Your task to perform on an android device: Search for vegetarian restaurants on Maps Image 0: 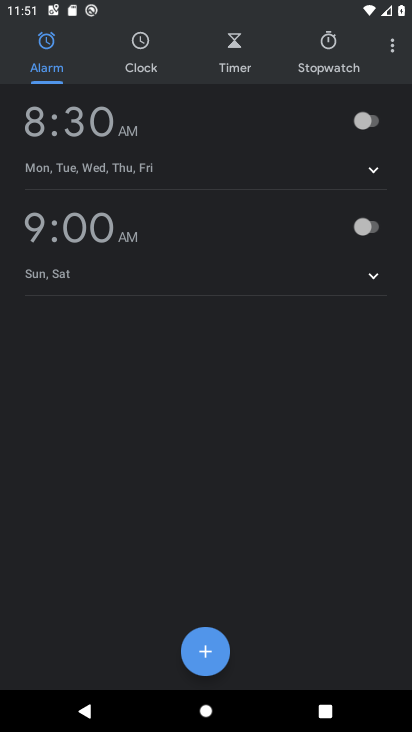
Step 0: press home button
Your task to perform on an android device: Search for vegetarian restaurants on Maps Image 1: 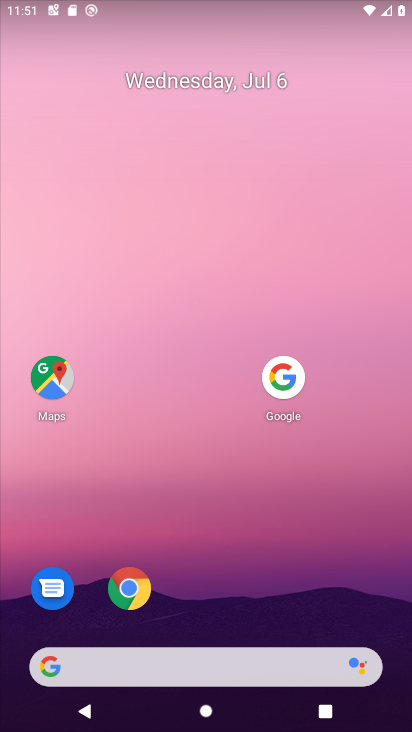
Step 1: click (52, 376)
Your task to perform on an android device: Search for vegetarian restaurants on Maps Image 2: 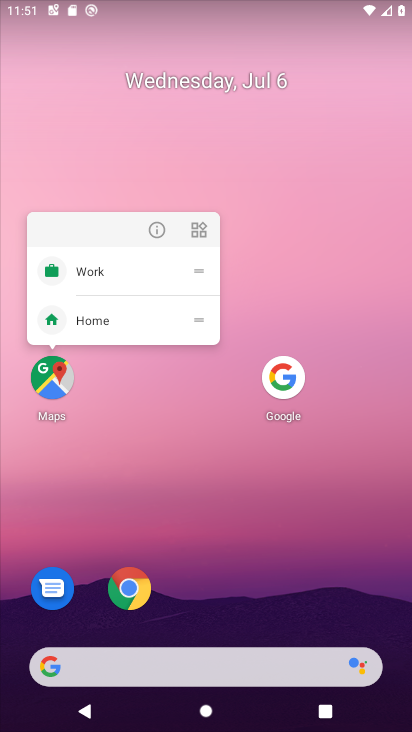
Step 2: click (50, 379)
Your task to perform on an android device: Search for vegetarian restaurants on Maps Image 3: 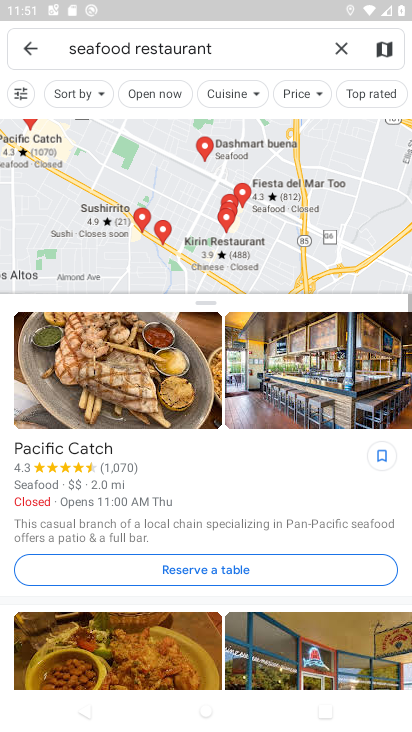
Step 3: click (339, 40)
Your task to perform on an android device: Search for vegetarian restaurants on Maps Image 4: 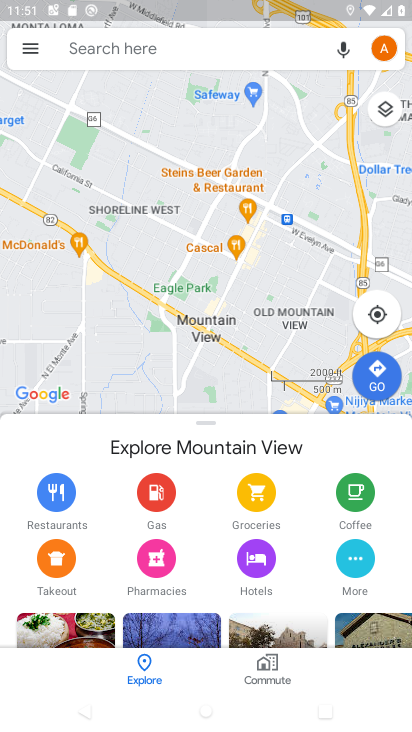
Step 4: click (254, 45)
Your task to perform on an android device: Search for vegetarian restaurants on Maps Image 5: 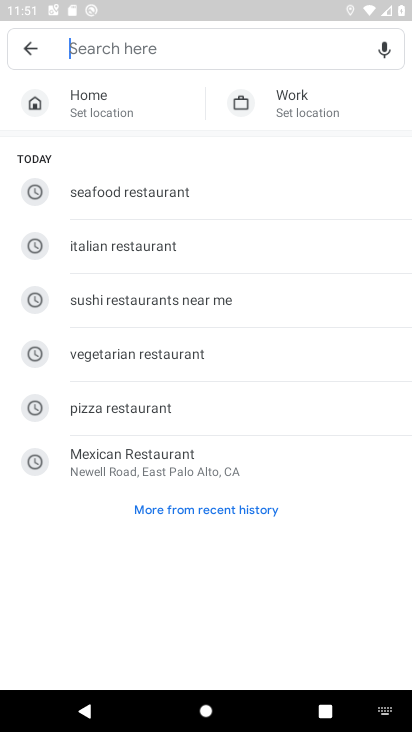
Step 5: click (143, 347)
Your task to perform on an android device: Search for vegetarian restaurants on Maps Image 6: 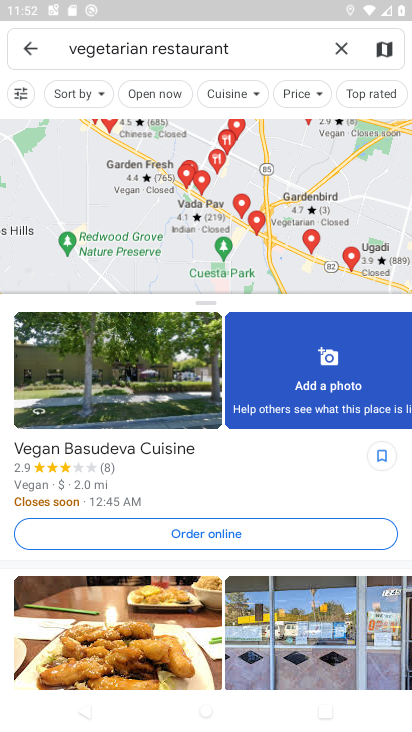
Step 6: task complete